Your task to perform on an android device: Open settings Image 0: 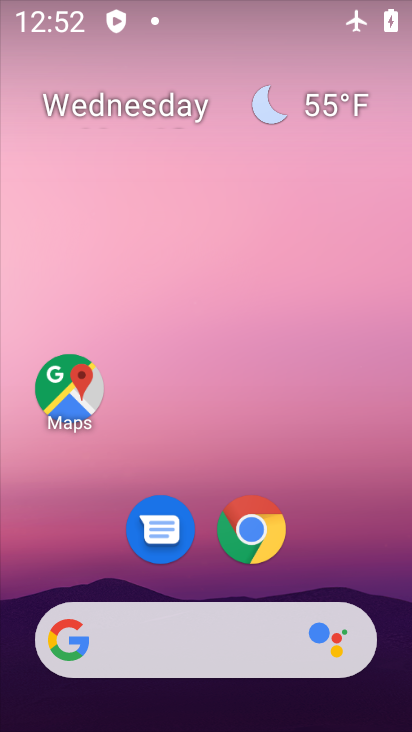
Step 0: drag from (208, 726) to (192, 118)
Your task to perform on an android device: Open settings Image 1: 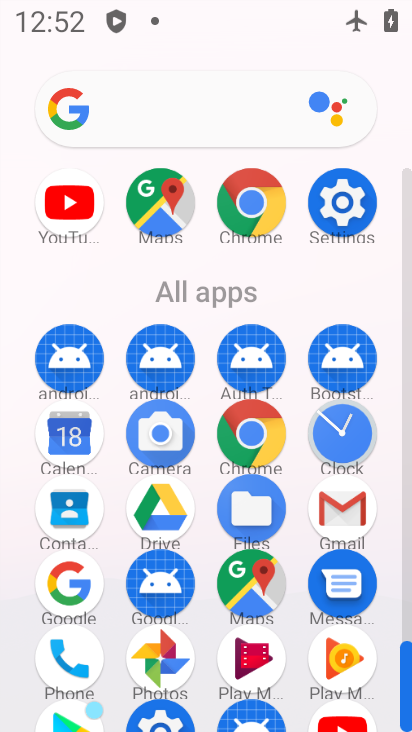
Step 1: click (347, 198)
Your task to perform on an android device: Open settings Image 2: 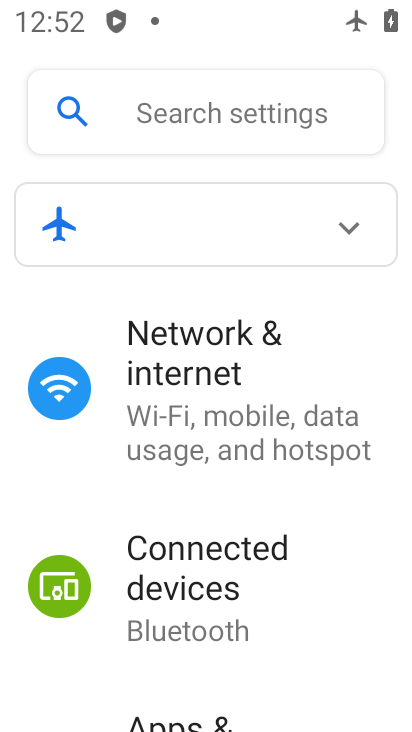
Step 2: task complete